Your task to perform on an android device: change the clock display to digital Image 0: 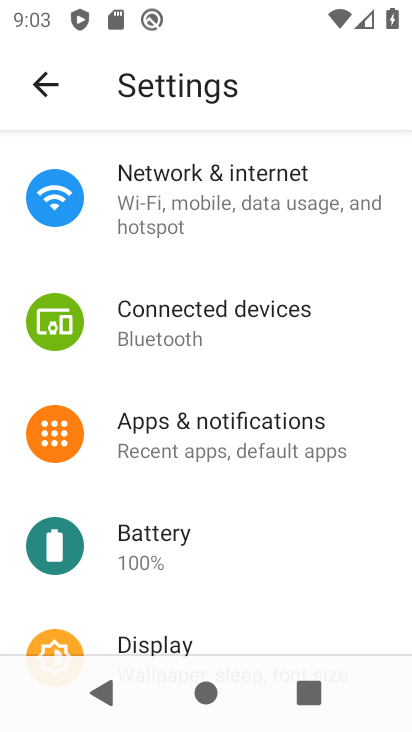
Step 0: press home button
Your task to perform on an android device: change the clock display to digital Image 1: 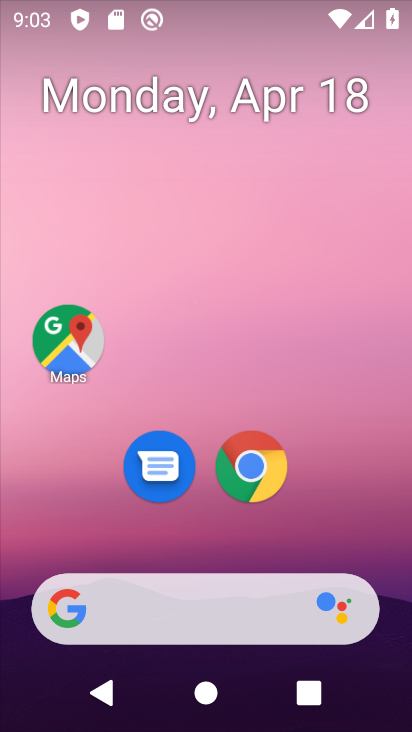
Step 1: drag from (222, 523) to (209, 27)
Your task to perform on an android device: change the clock display to digital Image 2: 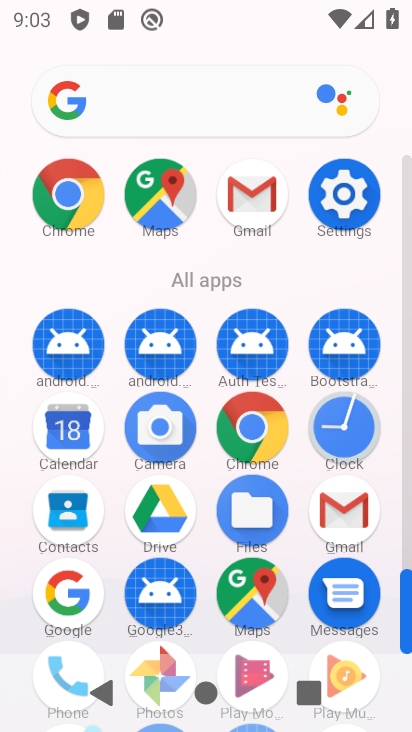
Step 2: click (341, 418)
Your task to perform on an android device: change the clock display to digital Image 3: 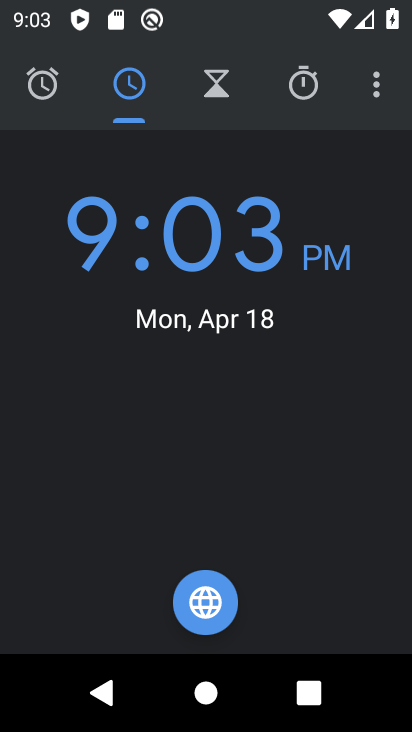
Step 3: click (371, 88)
Your task to perform on an android device: change the clock display to digital Image 4: 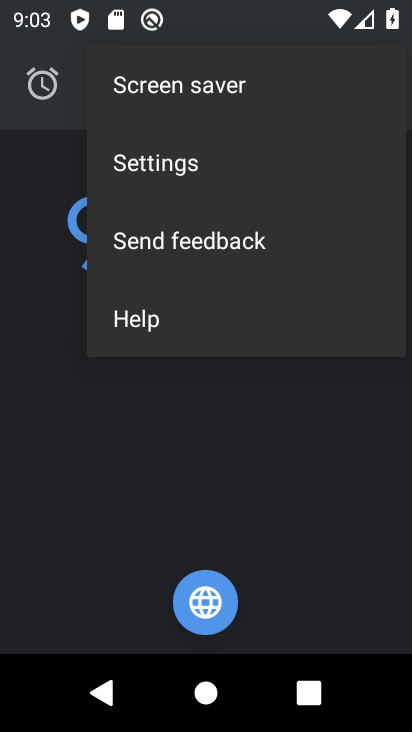
Step 4: click (163, 165)
Your task to perform on an android device: change the clock display to digital Image 5: 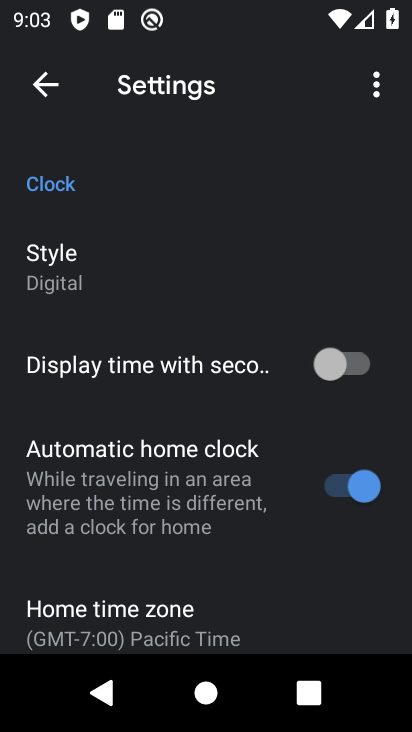
Step 5: click (142, 270)
Your task to perform on an android device: change the clock display to digital Image 6: 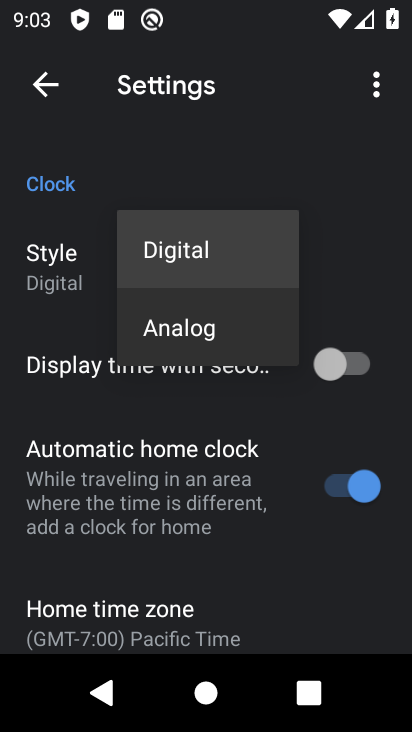
Step 6: click (216, 251)
Your task to perform on an android device: change the clock display to digital Image 7: 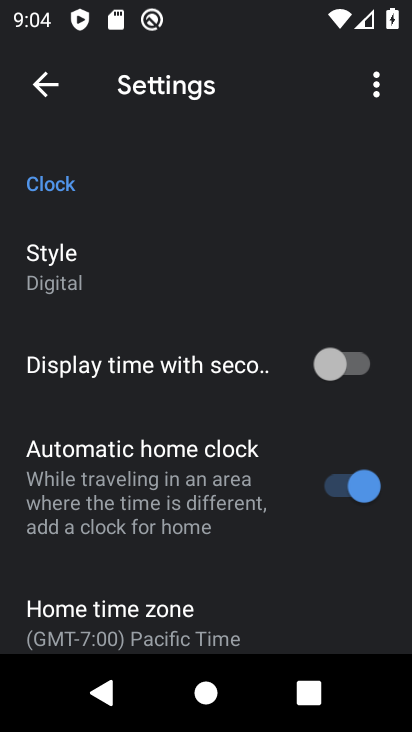
Step 7: task complete